Your task to perform on an android device: Open privacy settings Image 0: 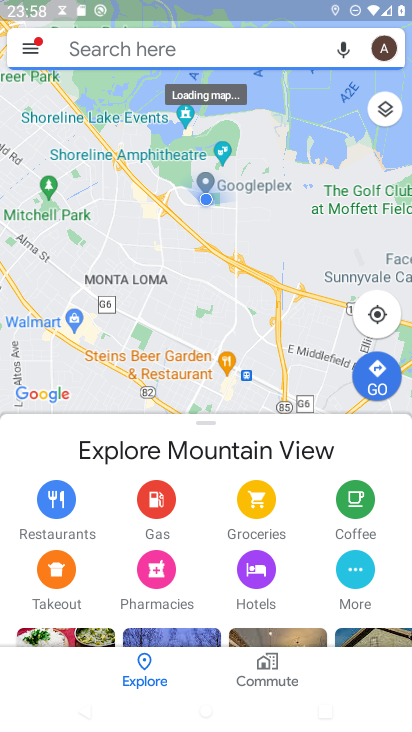
Step 0: press home button
Your task to perform on an android device: Open privacy settings Image 1: 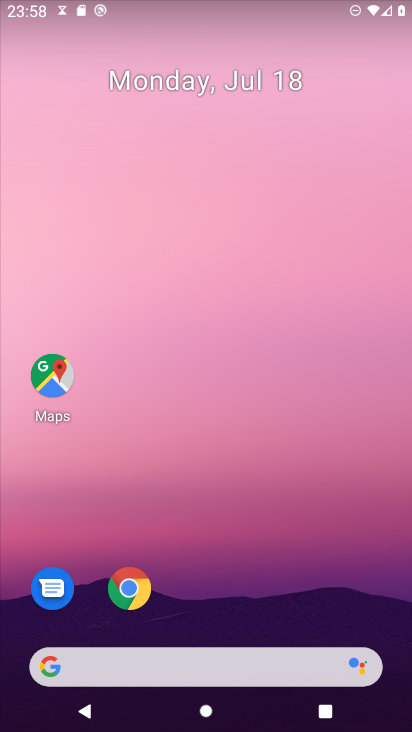
Step 1: drag from (274, 614) to (346, 48)
Your task to perform on an android device: Open privacy settings Image 2: 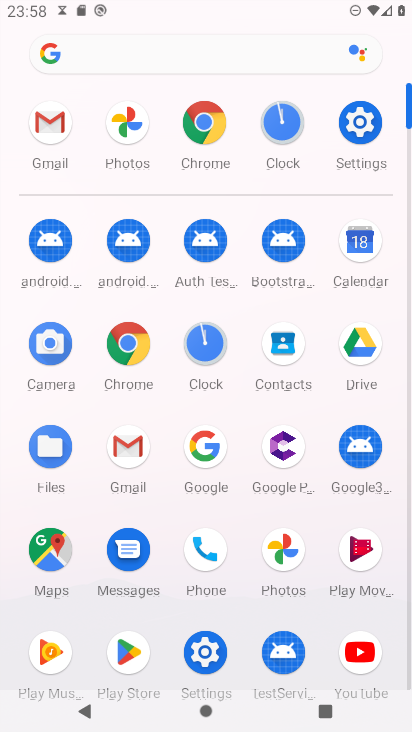
Step 2: click (364, 126)
Your task to perform on an android device: Open privacy settings Image 3: 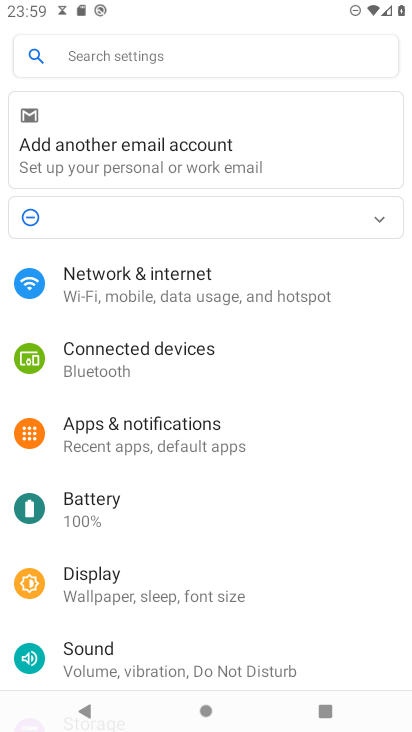
Step 3: drag from (204, 605) to (218, 208)
Your task to perform on an android device: Open privacy settings Image 4: 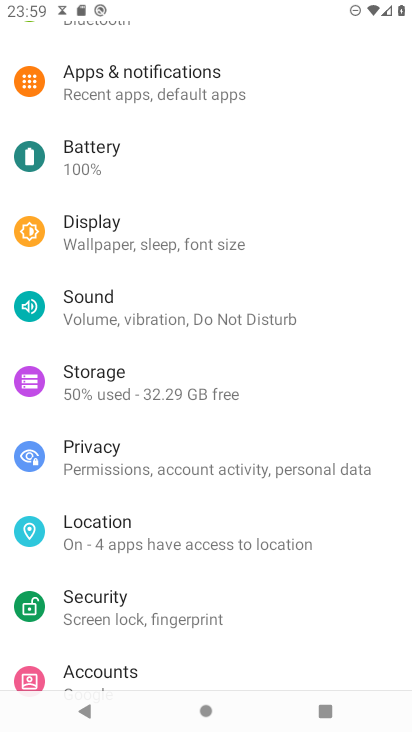
Step 4: click (119, 461)
Your task to perform on an android device: Open privacy settings Image 5: 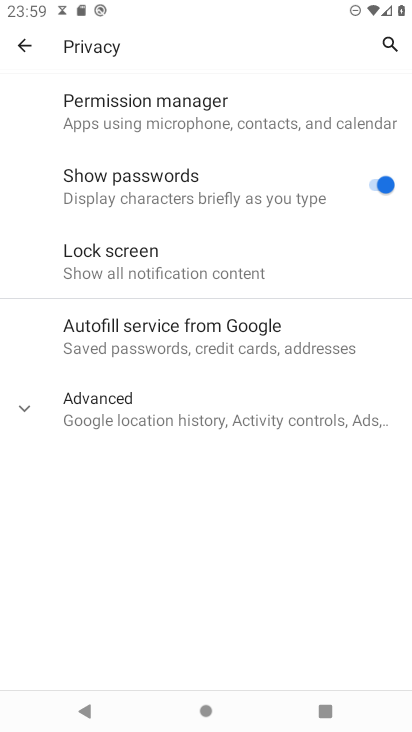
Step 5: task complete